Your task to perform on an android device: turn on sleep mode Image 0: 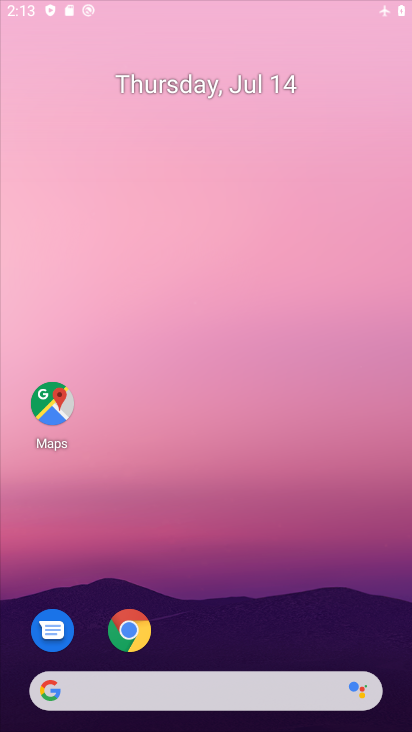
Step 0: press home button
Your task to perform on an android device: turn on sleep mode Image 1: 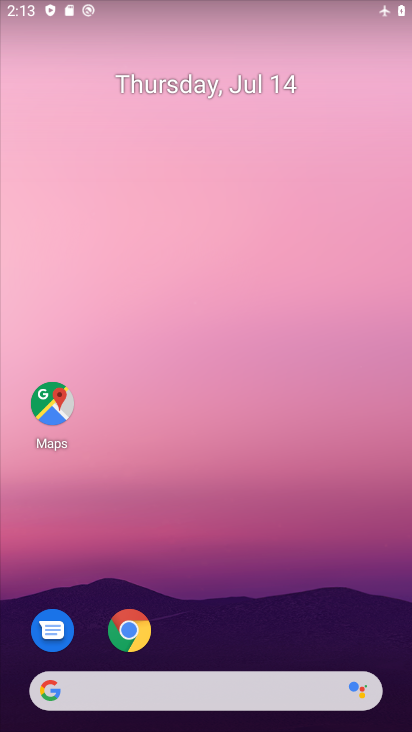
Step 1: drag from (265, 605) to (270, 330)
Your task to perform on an android device: turn on sleep mode Image 2: 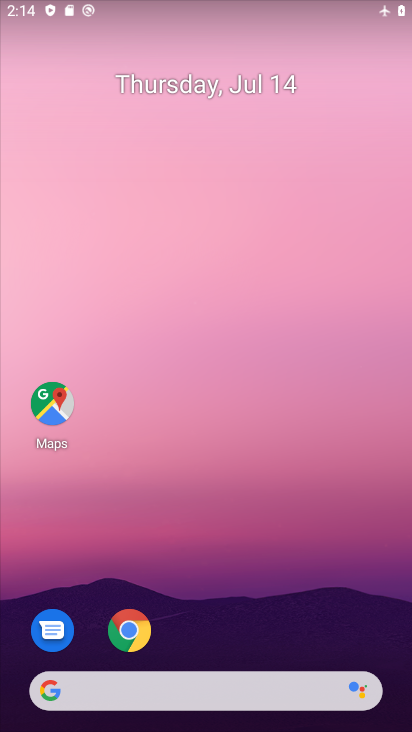
Step 2: drag from (277, 607) to (218, 265)
Your task to perform on an android device: turn on sleep mode Image 3: 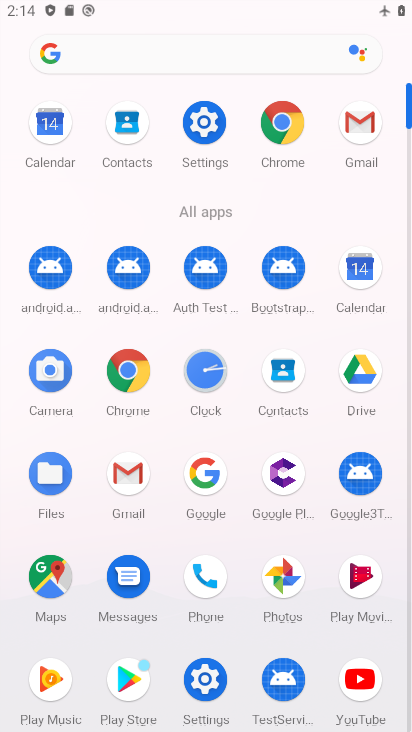
Step 3: click (210, 124)
Your task to perform on an android device: turn on sleep mode Image 4: 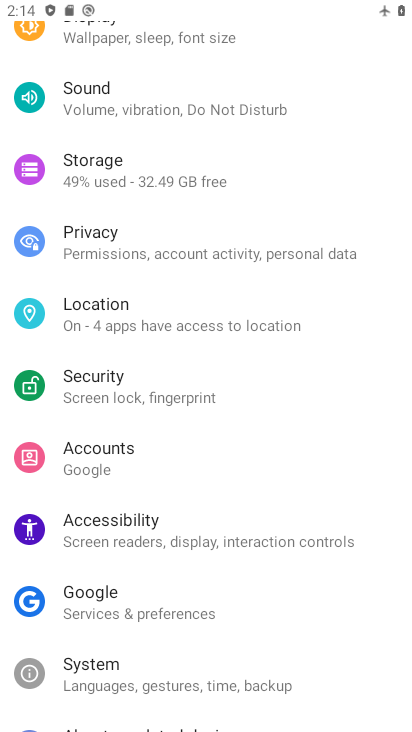
Step 4: drag from (179, 113) to (208, 470)
Your task to perform on an android device: turn on sleep mode Image 5: 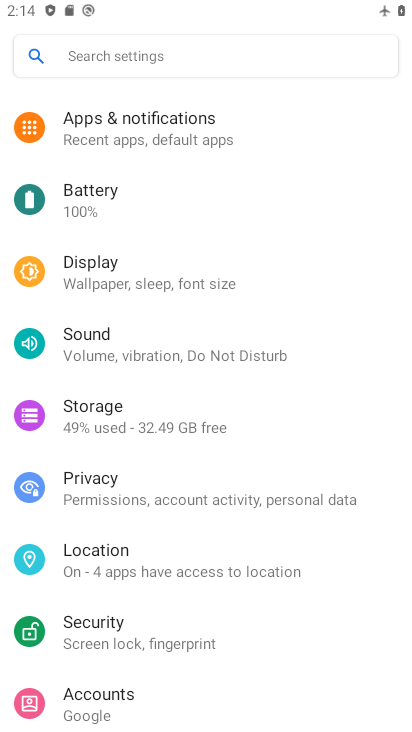
Step 5: click (113, 269)
Your task to perform on an android device: turn on sleep mode Image 6: 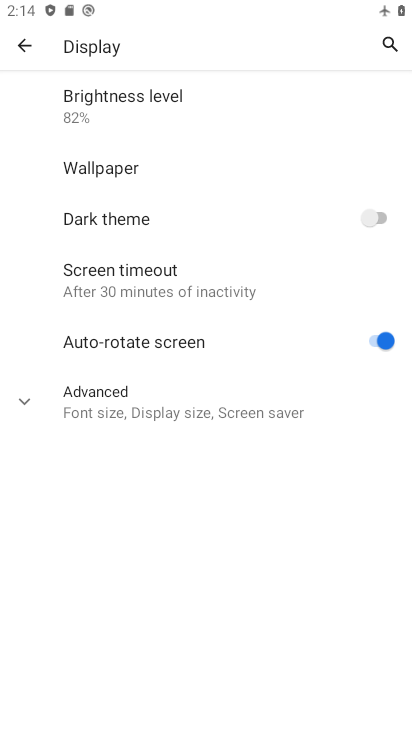
Step 6: click (22, 405)
Your task to perform on an android device: turn on sleep mode Image 7: 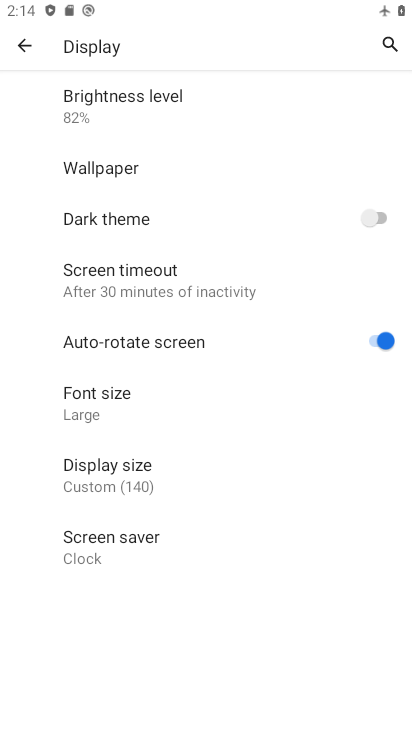
Step 7: task complete